Your task to perform on an android device: Open display settings Image 0: 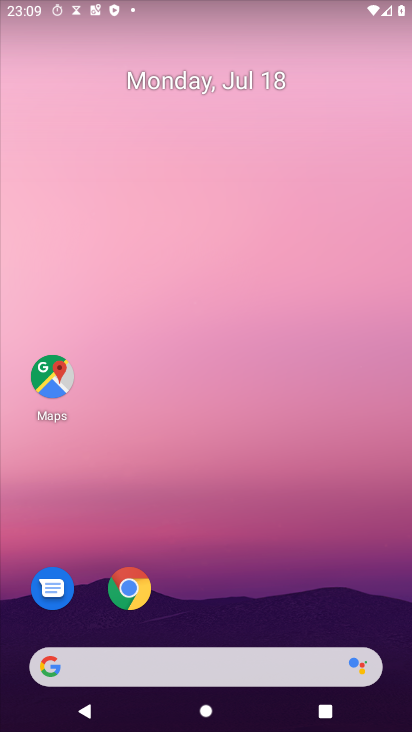
Step 0: press home button
Your task to perform on an android device: Open display settings Image 1: 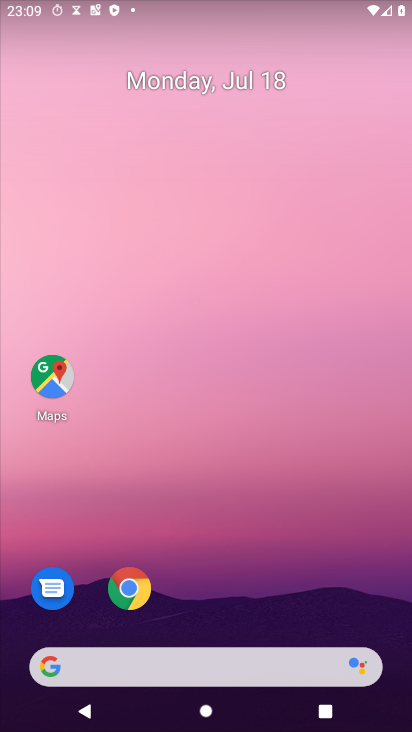
Step 1: drag from (190, 665) to (349, 119)
Your task to perform on an android device: Open display settings Image 2: 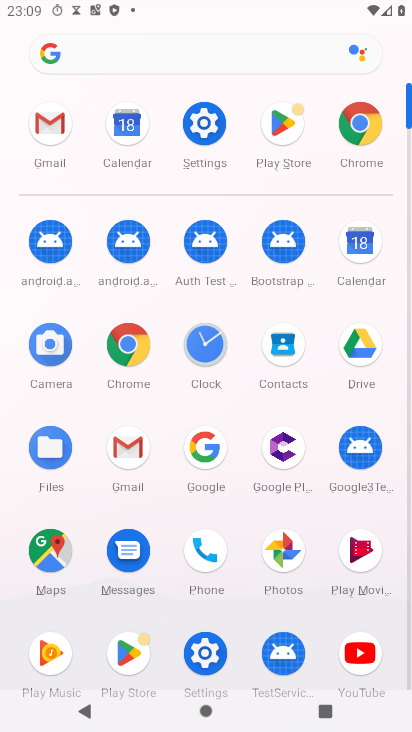
Step 2: click (193, 125)
Your task to perform on an android device: Open display settings Image 3: 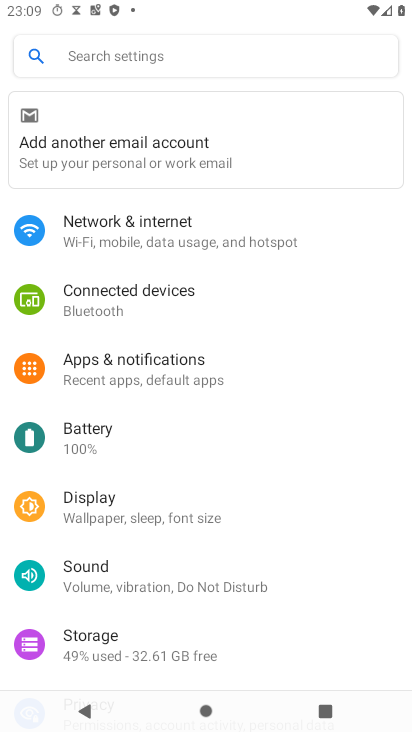
Step 3: click (127, 507)
Your task to perform on an android device: Open display settings Image 4: 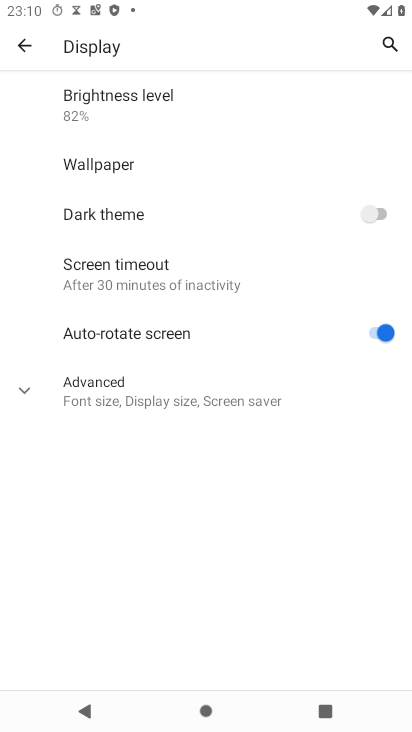
Step 4: task complete